Your task to perform on an android device: Open Amazon Image 0: 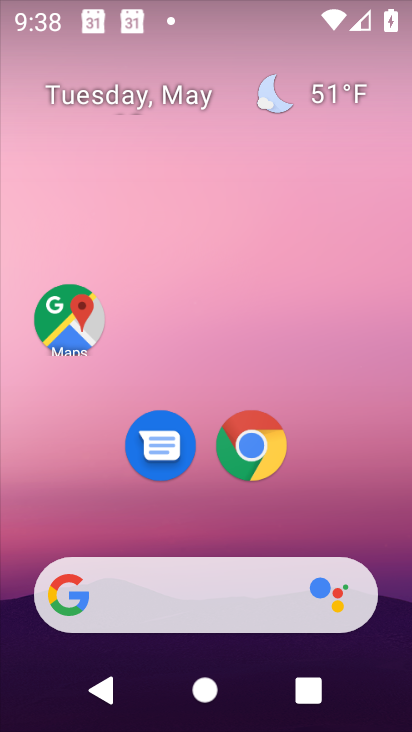
Step 0: click (278, 457)
Your task to perform on an android device: Open Amazon Image 1: 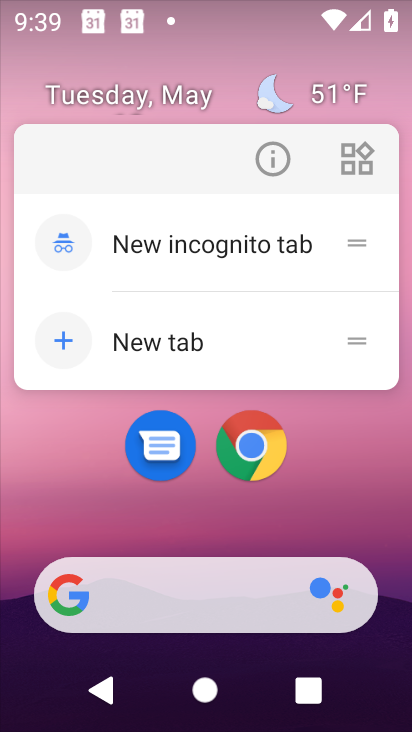
Step 1: click (271, 459)
Your task to perform on an android device: Open Amazon Image 2: 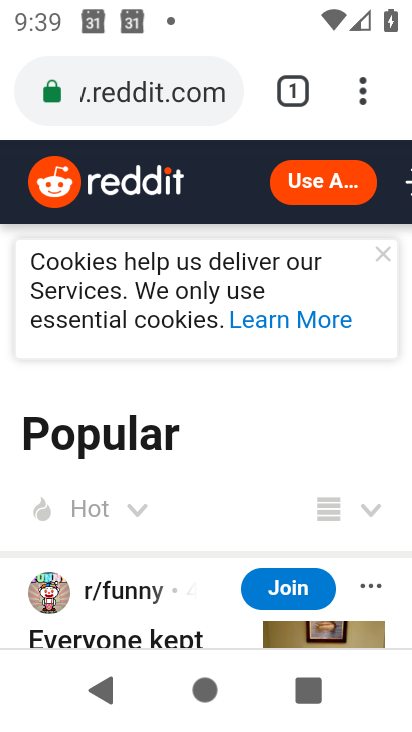
Step 2: click (158, 104)
Your task to perform on an android device: Open Amazon Image 3: 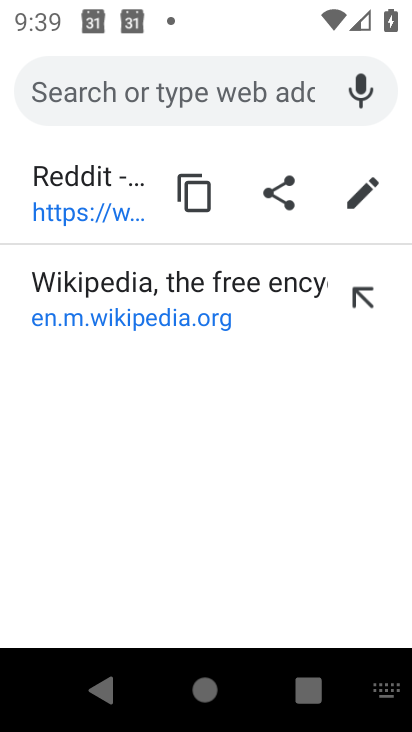
Step 3: type "amazon"
Your task to perform on an android device: Open Amazon Image 4: 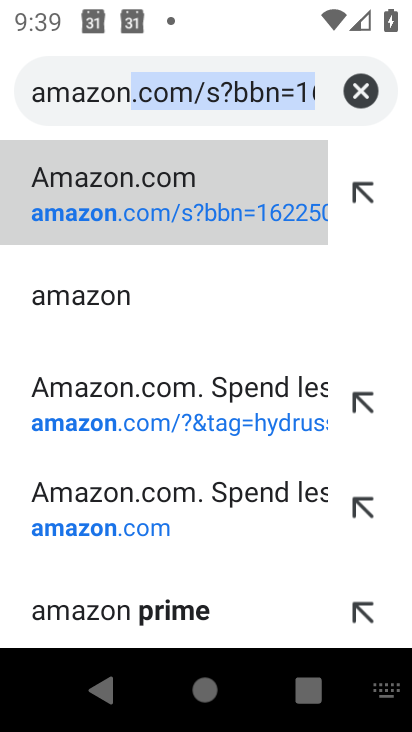
Step 4: click (168, 198)
Your task to perform on an android device: Open Amazon Image 5: 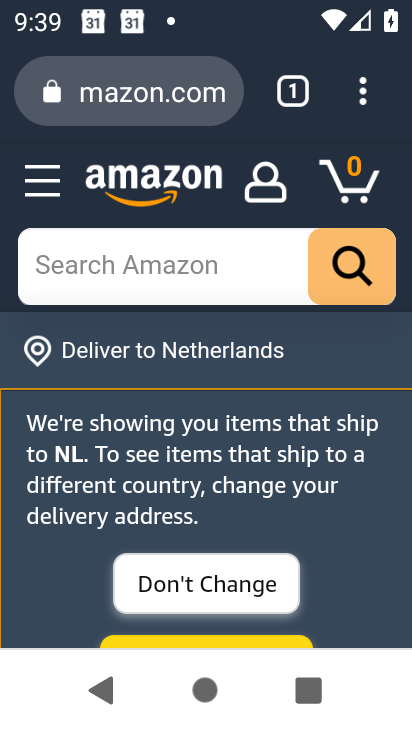
Step 5: task complete